Your task to perform on an android device: Open Google Chrome Image 0: 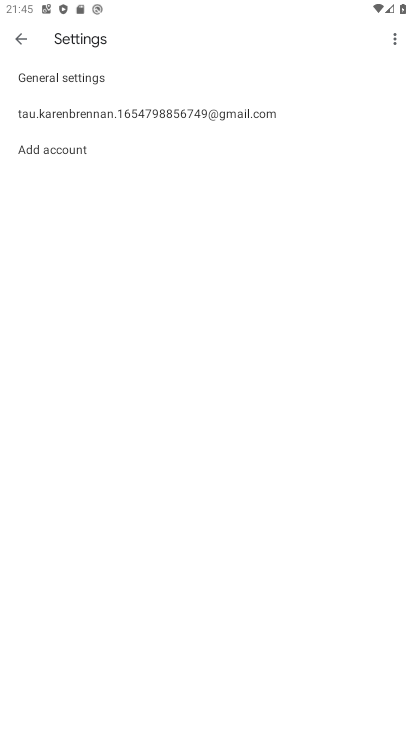
Step 0: press home button
Your task to perform on an android device: Open Google Chrome Image 1: 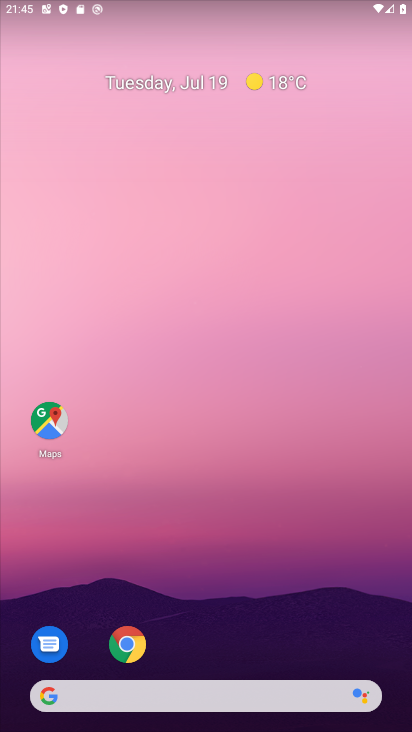
Step 1: click (130, 645)
Your task to perform on an android device: Open Google Chrome Image 2: 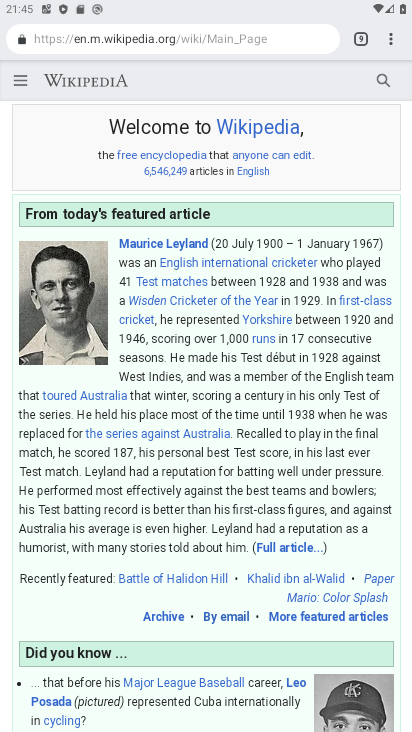
Step 2: task complete